Your task to perform on an android device: toggle notification dots Image 0: 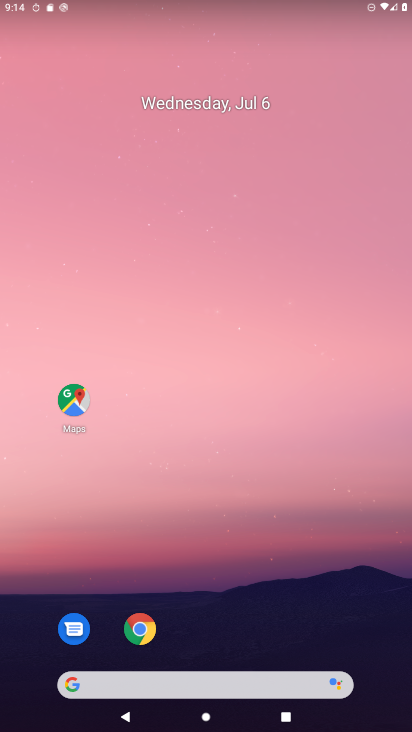
Step 0: drag from (240, 699) to (261, 491)
Your task to perform on an android device: toggle notification dots Image 1: 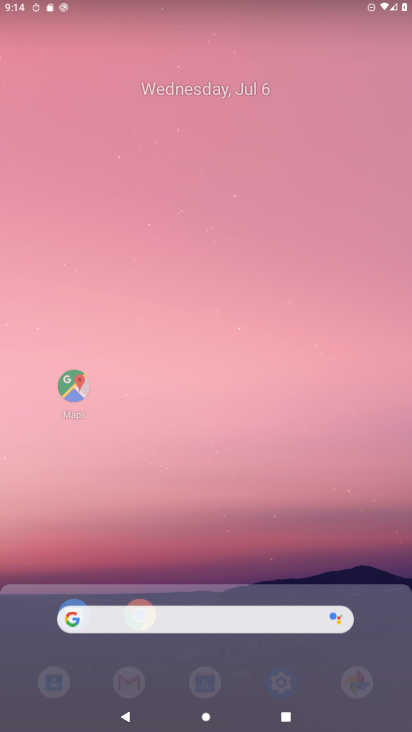
Step 1: drag from (268, 161) to (274, 61)
Your task to perform on an android device: toggle notification dots Image 2: 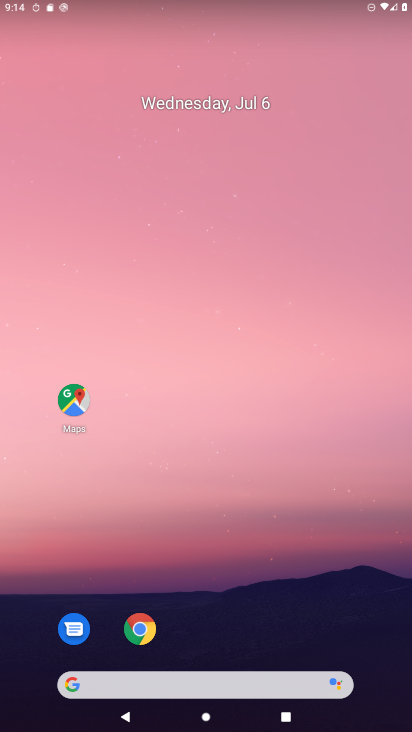
Step 2: drag from (255, 729) to (250, 65)
Your task to perform on an android device: toggle notification dots Image 3: 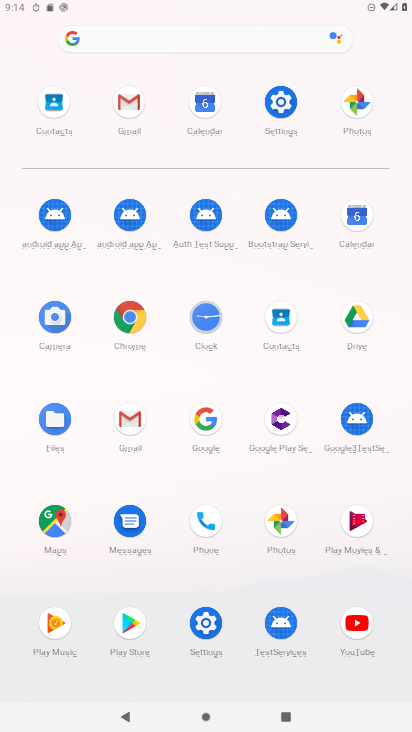
Step 3: click (283, 92)
Your task to perform on an android device: toggle notification dots Image 4: 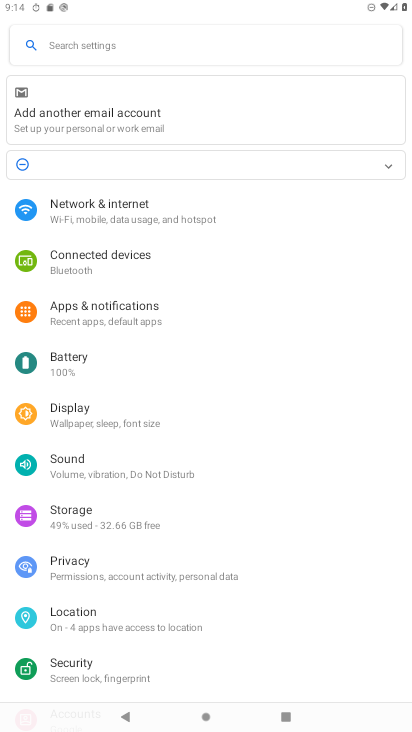
Step 4: click (108, 308)
Your task to perform on an android device: toggle notification dots Image 5: 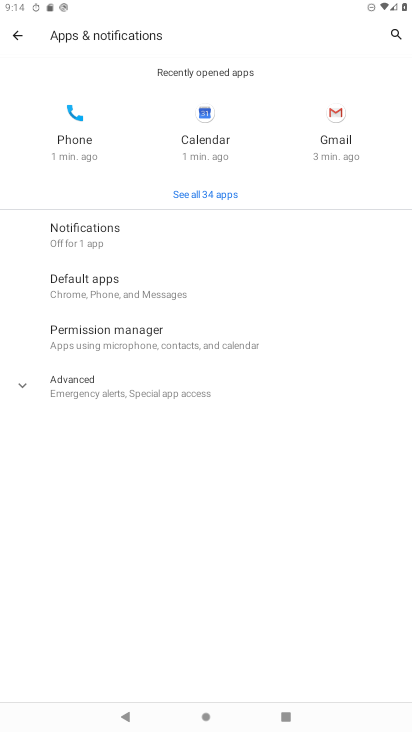
Step 5: click (79, 234)
Your task to perform on an android device: toggle notification dots Image 6: 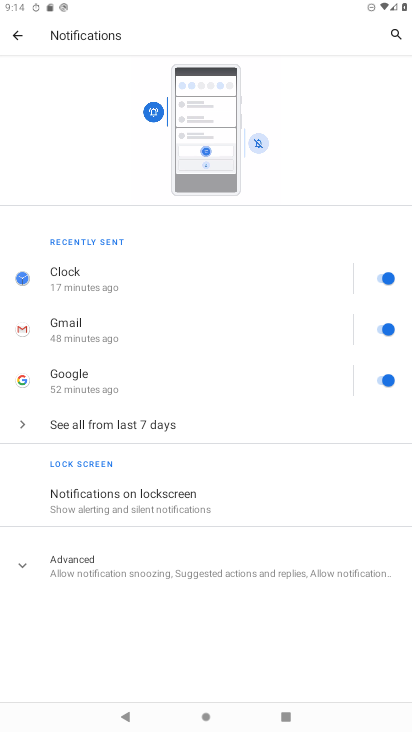
Step 6: click (92, 569)
Your task to perform on an android device: toggle notification dots Image 7: 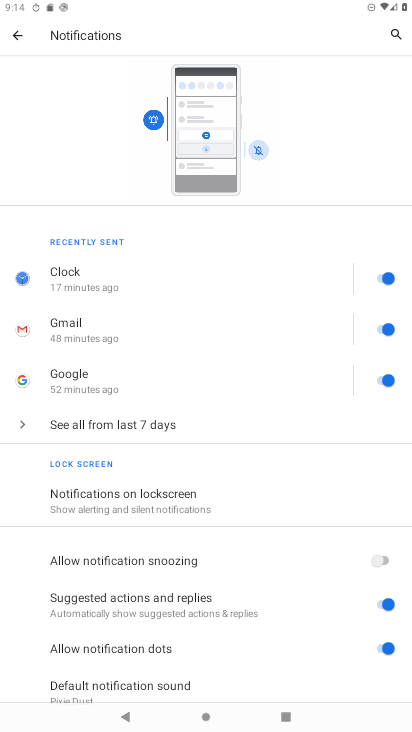
Step 7: click (384, 646)
Your task to perform on an android device: toggle notification dots Image 8: 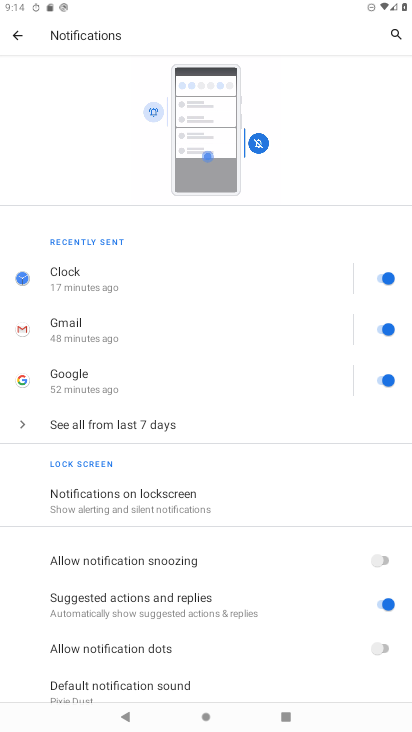
Step 8: task complete